Your task to perform on an android device: change the upload size in google photos Image 0: 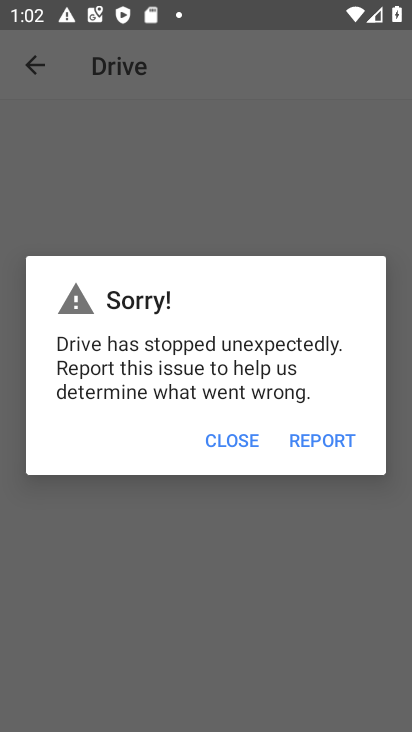
Step 0: press home button
Your task to perform on an android device: change the upload size in google photos Image 1: 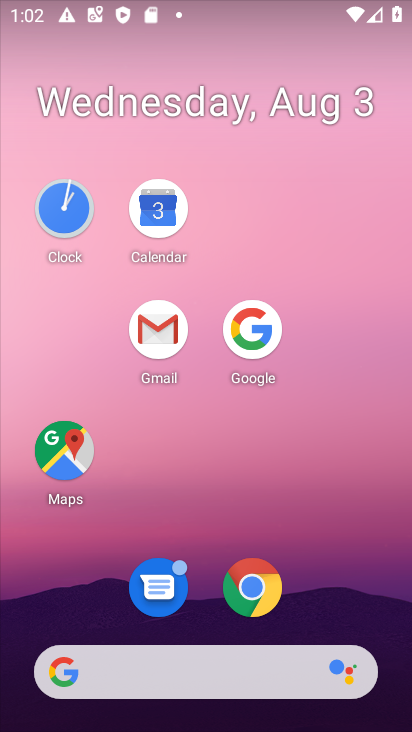
Step 1: drag from (323, 533) to (350, 141)
Your task to perform on an android device: change the upload size in google photos Image 2: 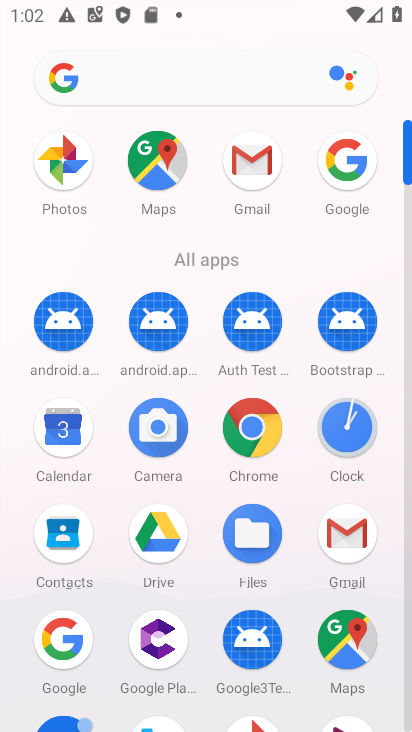
Step 2: drag from (60, 160) to (230, 243)
Your task to perform on an android device: change the upload size in google photos Image 3: 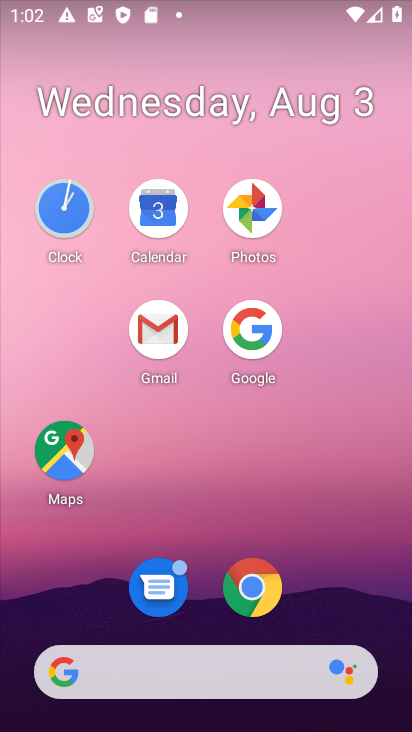
Step 3: click (257, 199)
Your task to perform on an android device: change the upload size in google photos Image 4: 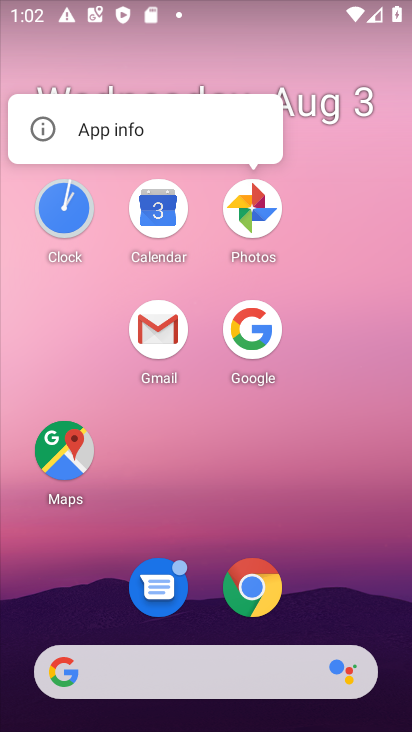
Step 4: click (257, 199)
Your task to perform on an android device: change the upload size in google photos Image 5: 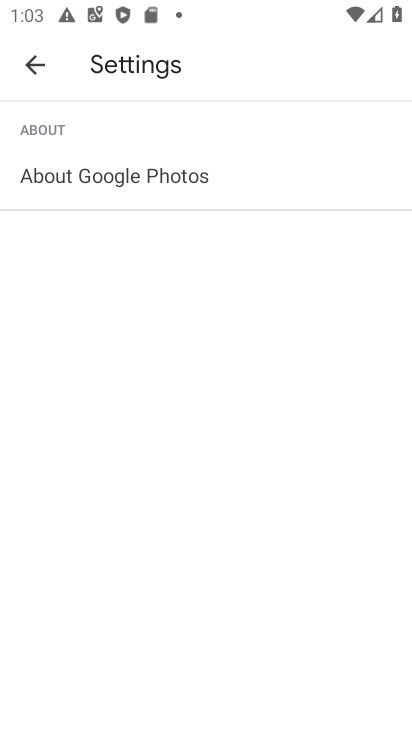
Step 5: click (35, 63)
Your task to perform on an android device: change the upload size in google photos Image 6: 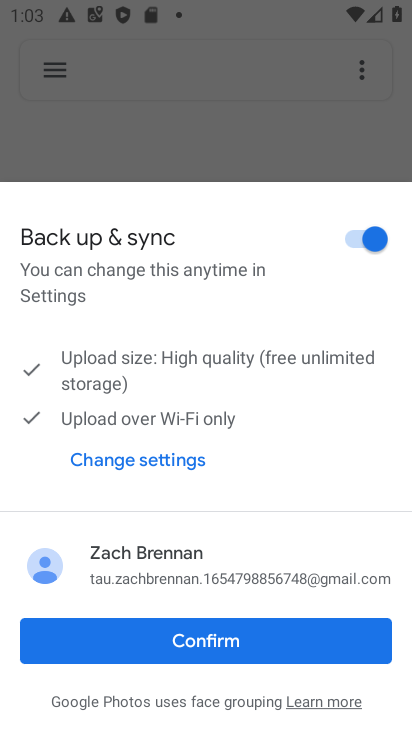
Step 6: click (49, 75)
Your task to perform on an android device: change the upload size in google photos Image 7: 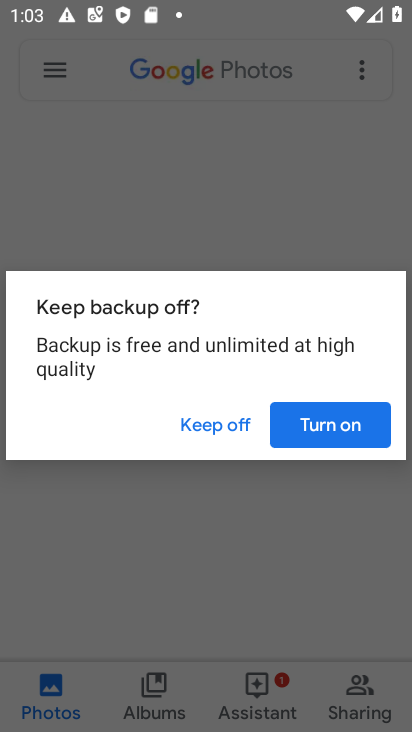
Step 7: click (315, 424)
Your task to perform on an android device: change the upload size in google photos Image 8: 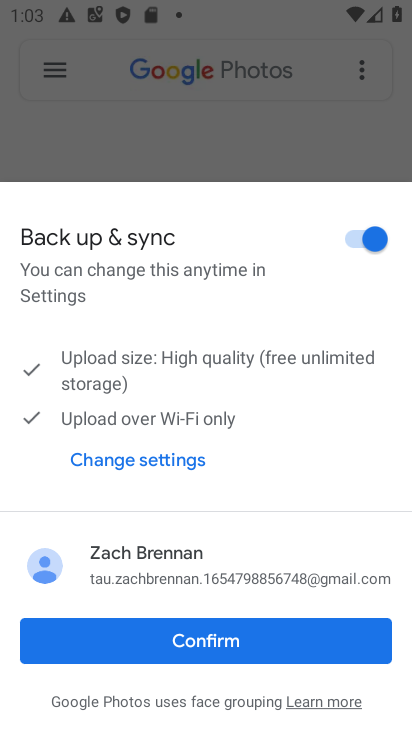
Step 8: click (241, 638)
Your task to perform on an android device: change the upload size in google photos Image 9: 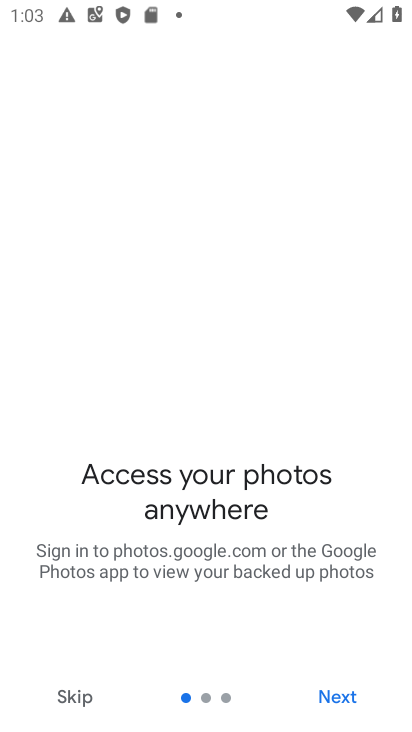
Step 9: click (313, 698)
Your task to perform on an android device: change the upload size in google photos Image 10: 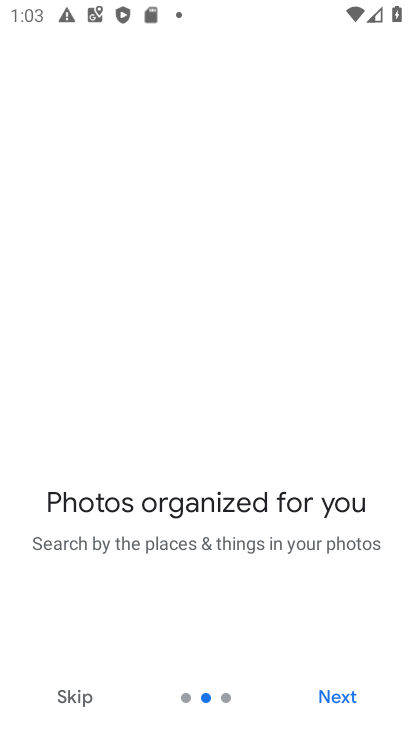
Step 10: click (313, 698)
Your task to perform on an android device: change the upload size in google photos Image 11: 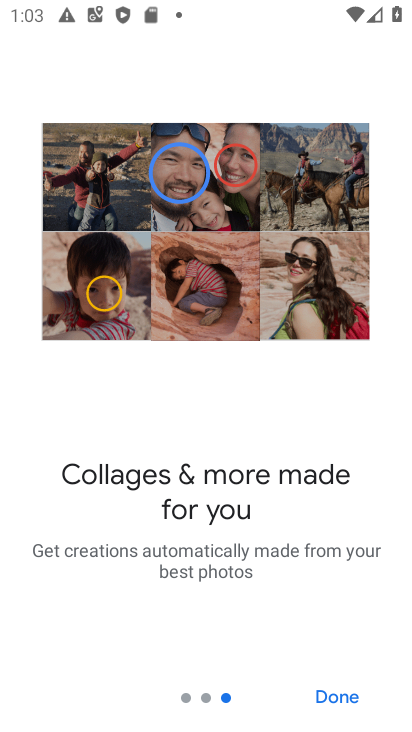
Step 11: click (313, 698)
Your task to perform on an android device: change the upload size in google photos Image 12: 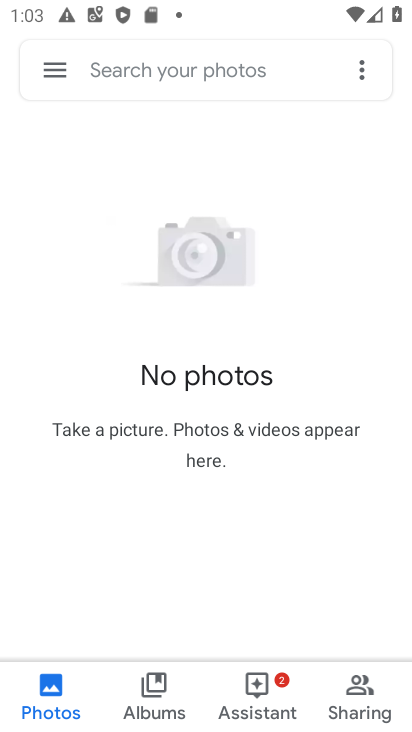
Step 12: click (49, 84)
Your task to perform on an android device: change the upload size in google photos Image 13: 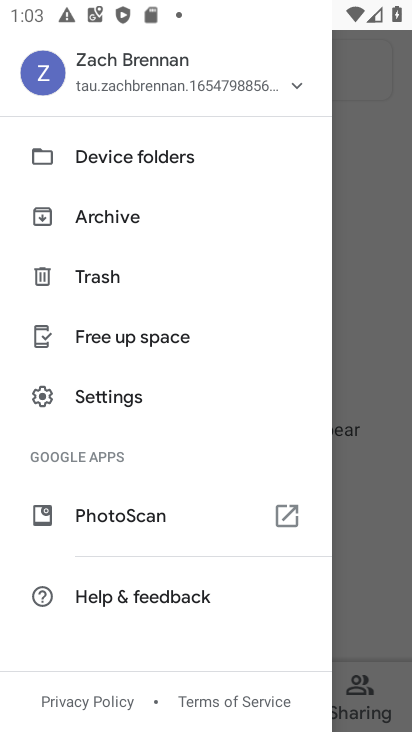
Step 13: click (147, 413)
Your task to perform on an android device: change the upload size in google photos Image 14: 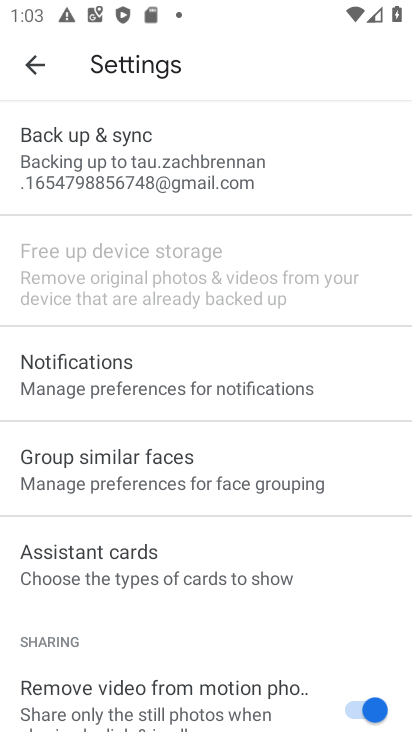
Step 14: click (172, 173)
Your task to perform on an android device: change the upload size in google photos Image 15: 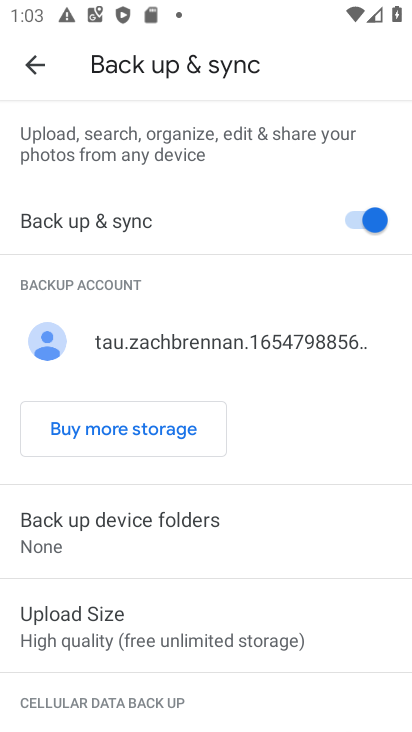
Step 15: click (322, 643)
Your task to perform on an android device: change the upload size in google photos Image 16: 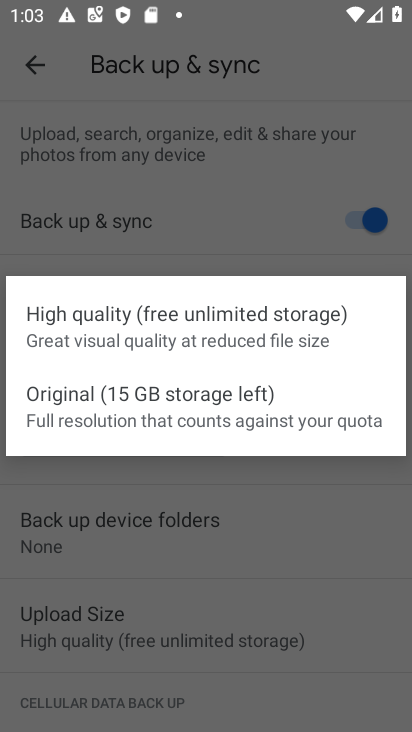
Step 16: click (234, 402)
Your task to perform on an android device: change the upload size in google photos Image 17: 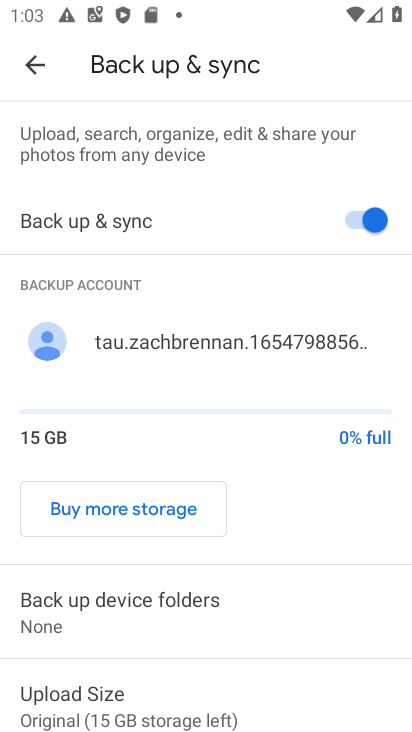
Step 17: task complete